Your task to perform on an android device: turn off javascript in the chrome app Image 0: 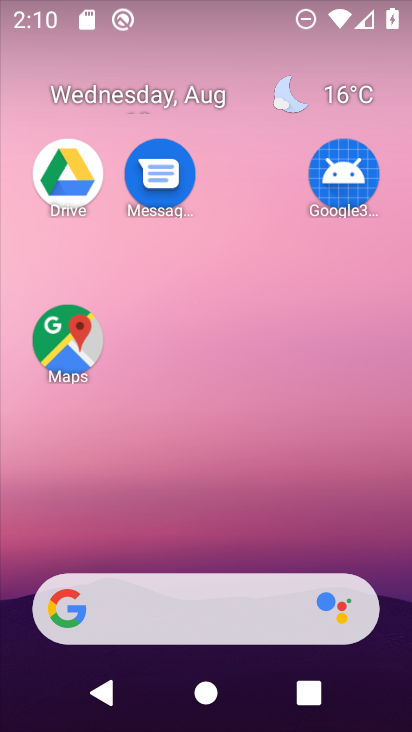
Step 0: drag from (151, 540) to (135, 84)
Your task to perform on an android device: turn off javascript in the chrome app Image 1: 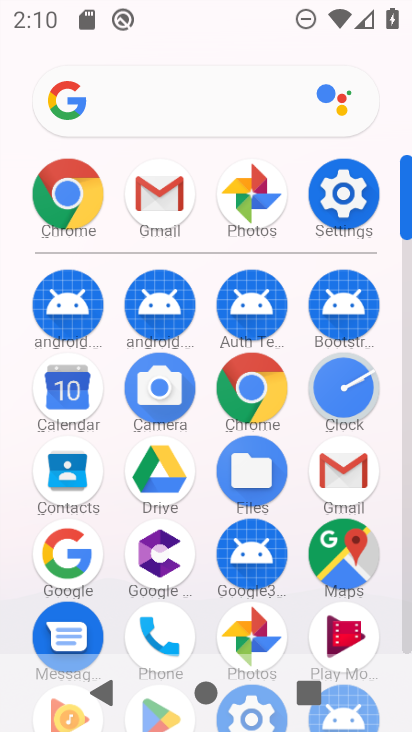
Step 1: click (78, 192)
Your task to perform on an android device: turn off javascript in the chrome app Image 2: 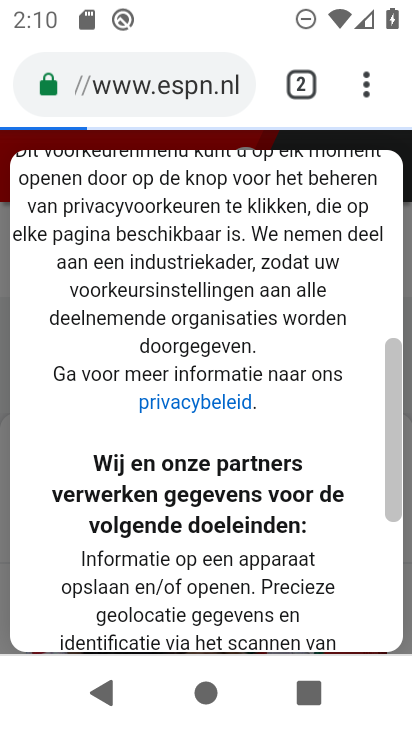
Step 2: click (376, 92)
Your task to perform on an android device: turn off javascript in the chrome app Image 3: 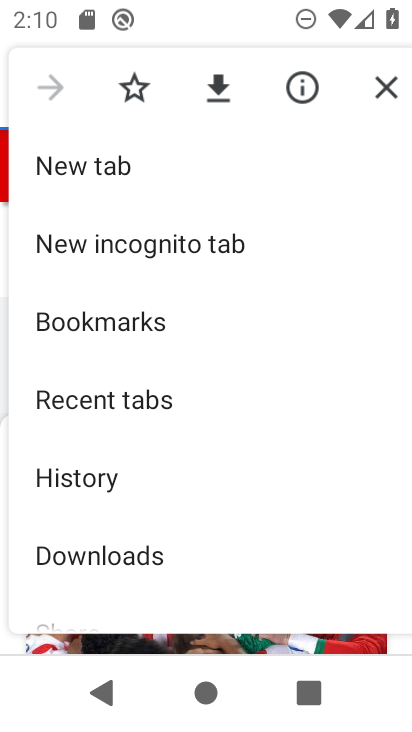
Step 3: drag from (162, 450) to (152, 144)
Your task to perform on an android device: turn off javascript in the chrome app Image 4: 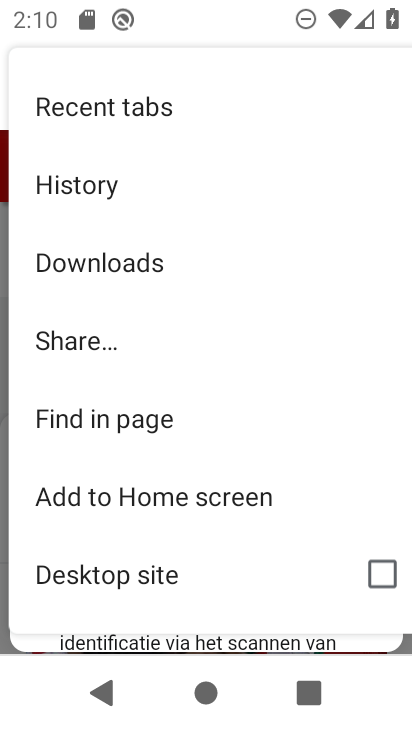
Step 4: drag from (115, 542) to (167, 102)
Your task to perform on an android device: turn off javascript in the chrome app Image 5: 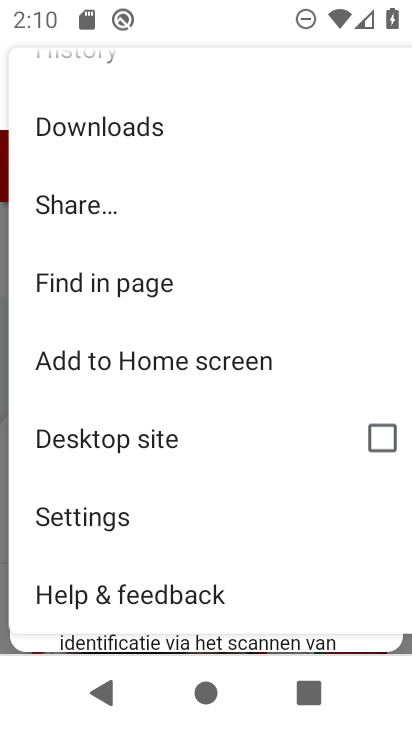
Step 5: click (161, 517)
Your task to perform on an android device: turn off javascript in the chrome app Image 6: 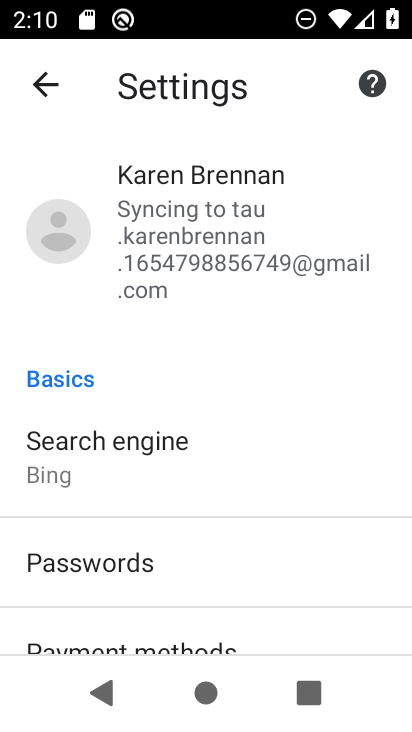
Step 6: drag from (154, 574) to (163, 128)
Your task to perform on an android device: turn off javascript in the chrome app Image 7: 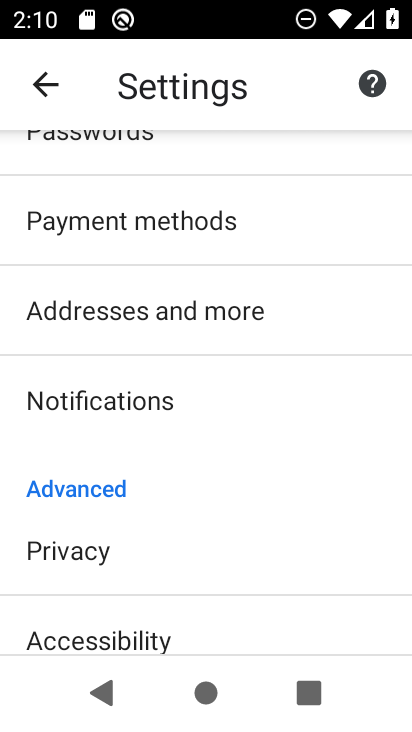
Step 7: drag from (130, 585) to (186, 159)
Your task to perform on an android device: turn off javascript in the chrome app Image 8: 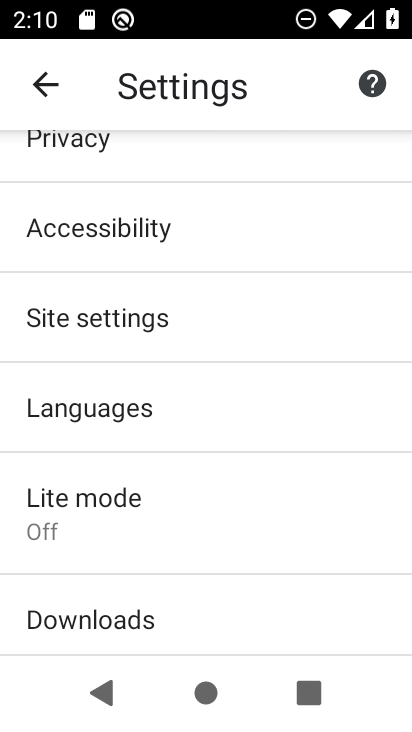
Step 8: click (146, 343)
Your task to perform on an android device: turn off javascript in the chrome app Image 9: 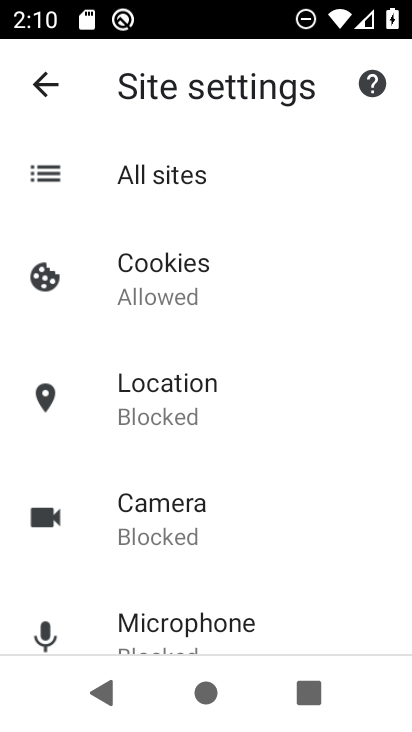
Step 9: drag from (103, 590) to (195, 83)
Your task to perform on an android device: turn off javascript in the chrome app Image 10: 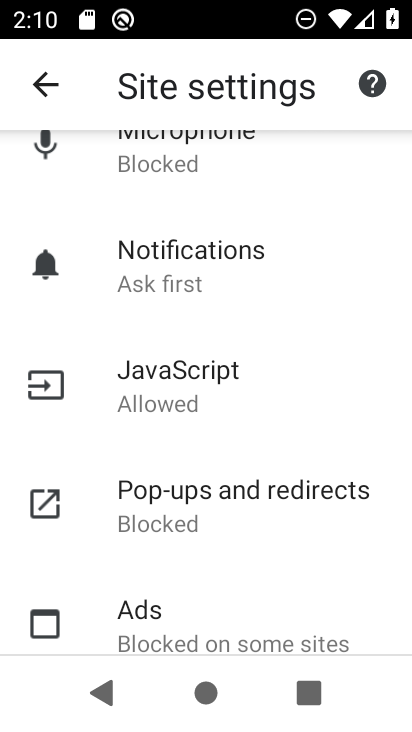
Step 10: click (177, 406)
Your task to perform on an android device: turn off javascript in the chrome app Image 11: 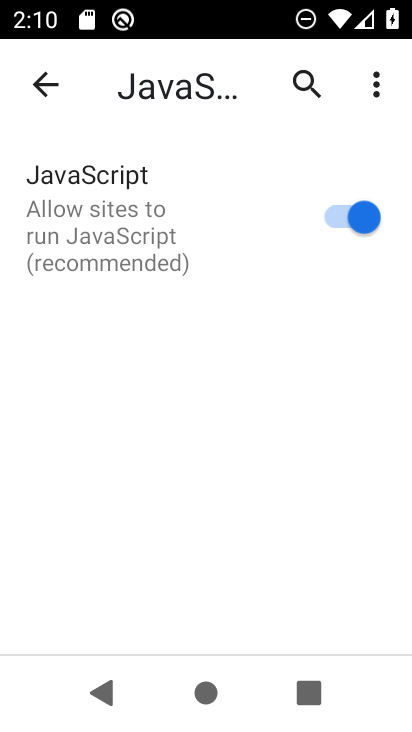
Step 11: click (337, 206)
Your task to perform on an android device: turn off javascript in the chrome app Image 12: 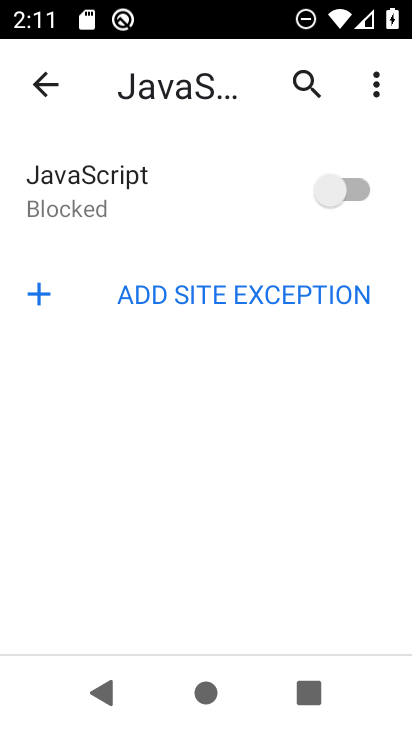
Step 12: task complete